Your task to perform on an android device: Open wifi settings Image 0: 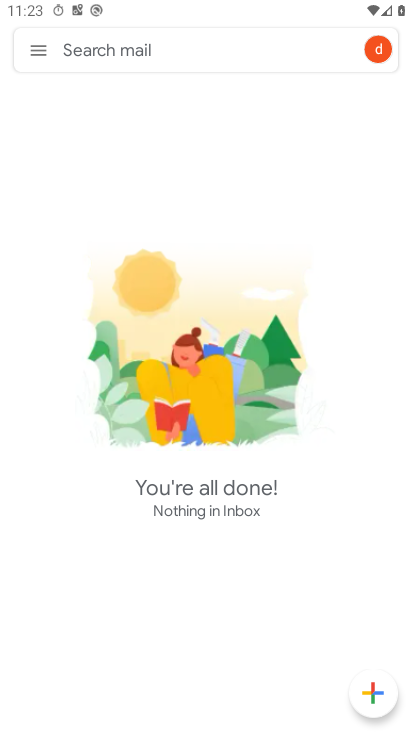
Step 0: press home button
Your task to perform on an android device: Open wifi settings Image 1: 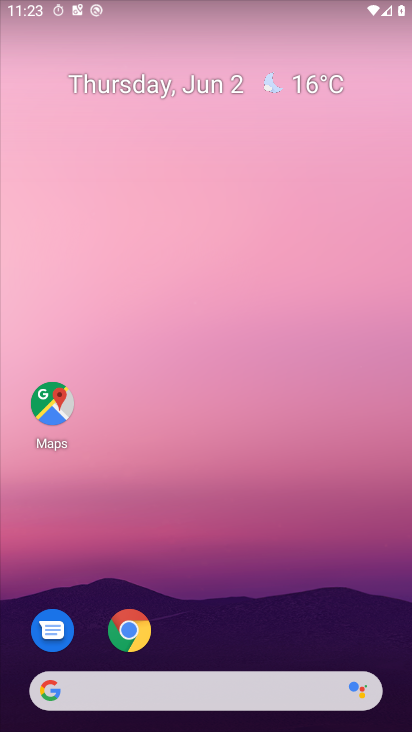
Step 1: drag from (198, 657) to (203, 92)
Your task to perform on an android device: Open wifi settings Image 2: 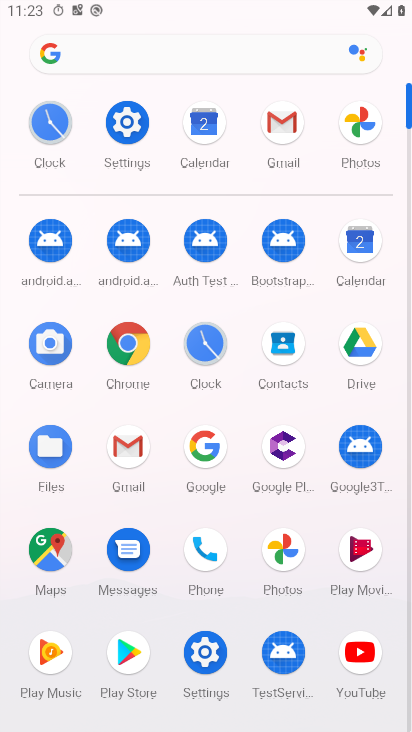
Step 2: click (127, 136)
Your task to perform on an android device: Open wifi settings Image 3: 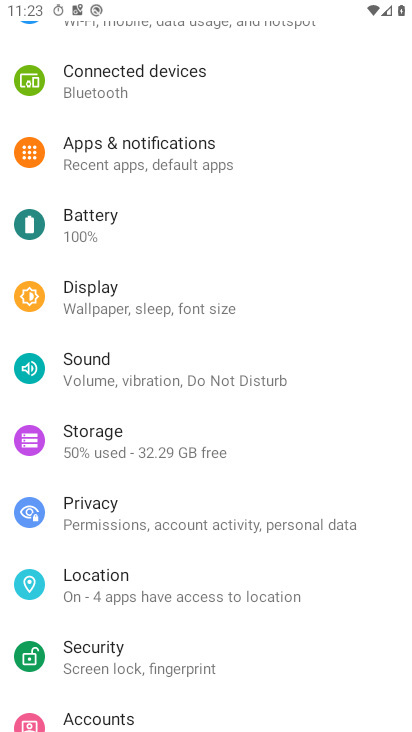
Step 3: drag from (189, 153) to (210, 501)
Your task to perform on an android device: Open wifi settings Image 4: 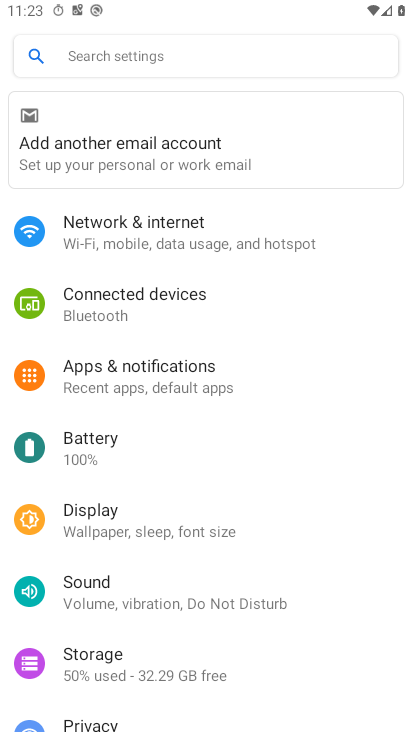
Step 4: click (191, 232)
Your task to perform on an android device: Open wifi settings Image 5: 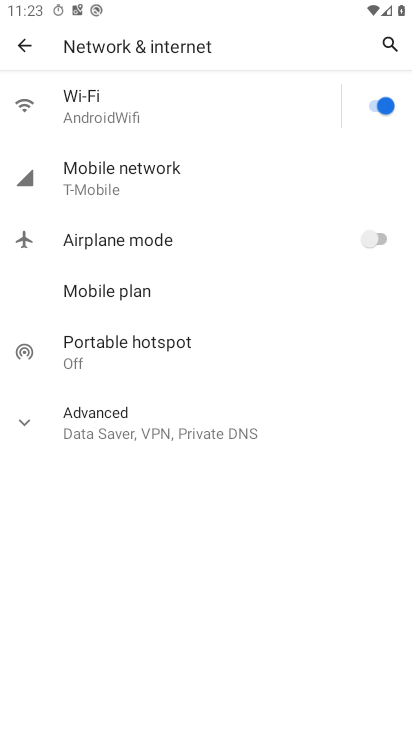
Step 5: click (161, 118)
Your task to perform on an android device: Open wifi settings Image 6: 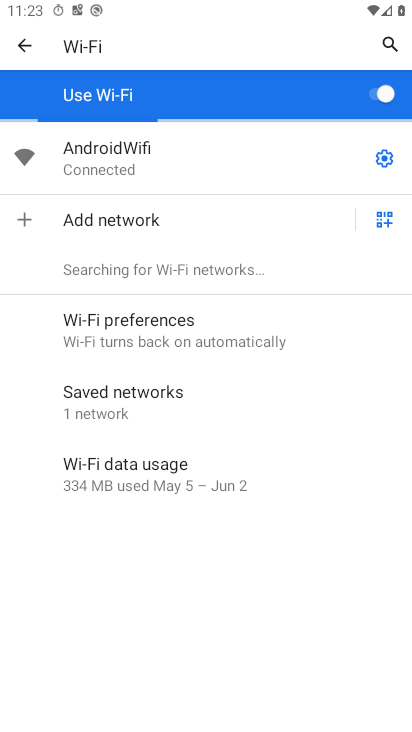
Step 6: task complete